Your task to perform on an android device: Open location settings Image 0: 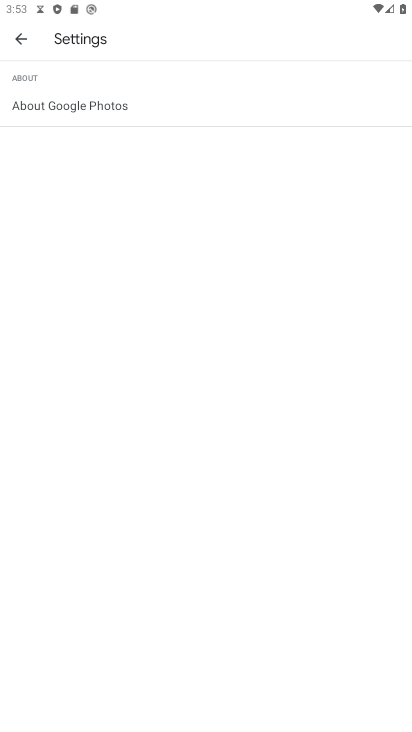
Step 0: press home button
Your task to perform on an android device: Open location settings Image 1: 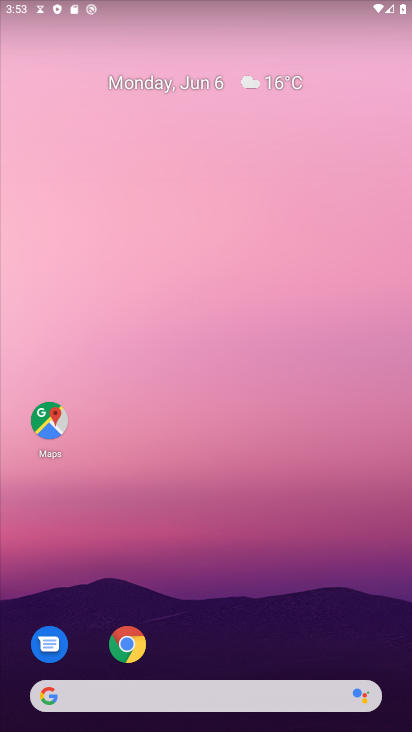
Step 1: drag from (136, 726) to (169, 56)
Your task to perform on an android device: Open location settings Image 2: 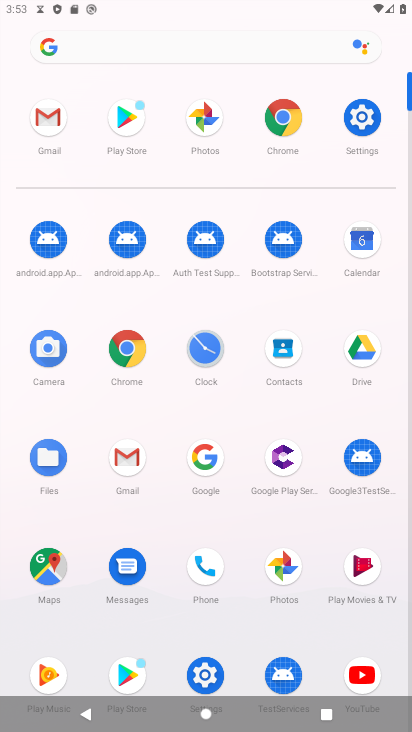
Step 2: click (207, 667)
Your task to perform on an android device: Open location settings Image 3: 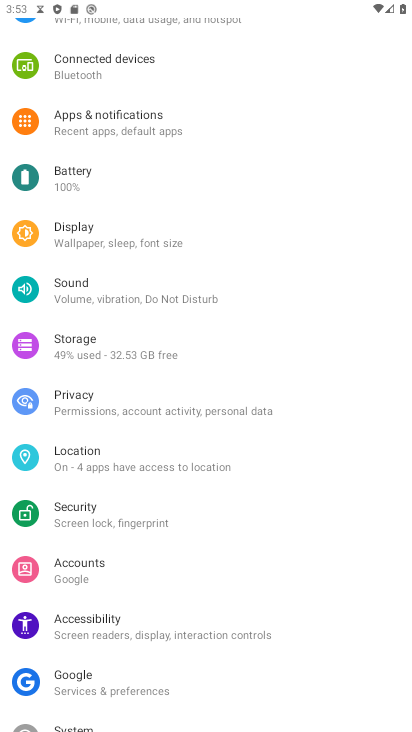
Step 3: click (64, 462)
Your task to perform on an android device: Open location settings Image 4: 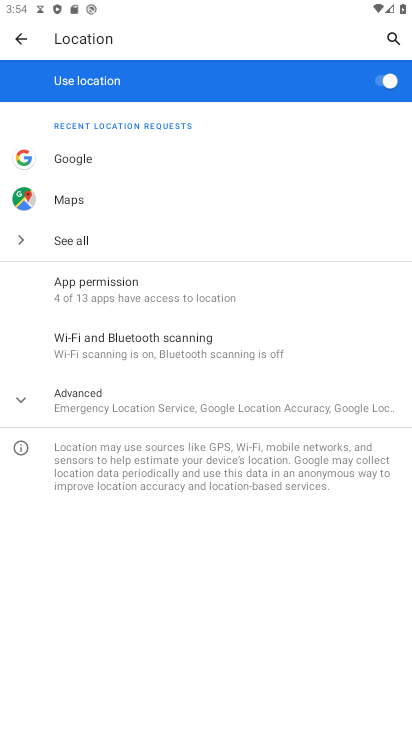
Step 4: task complete